Your task to perform on an android device: turn off data saver in the chrome app Image 0: 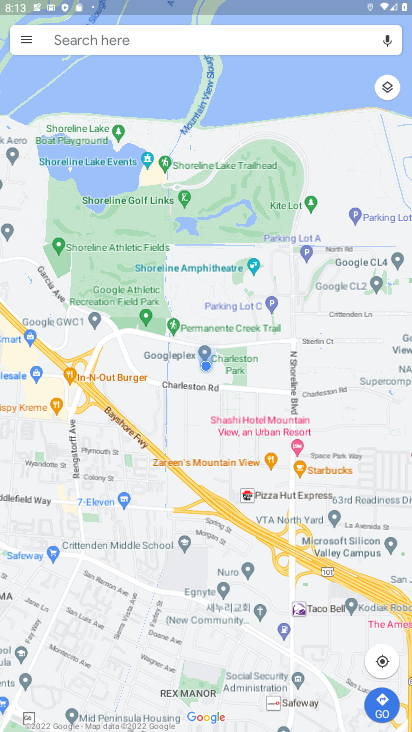
Step 0: press back button
Your task to perform on an android device: turn off data saver in the chrome app Image 1: 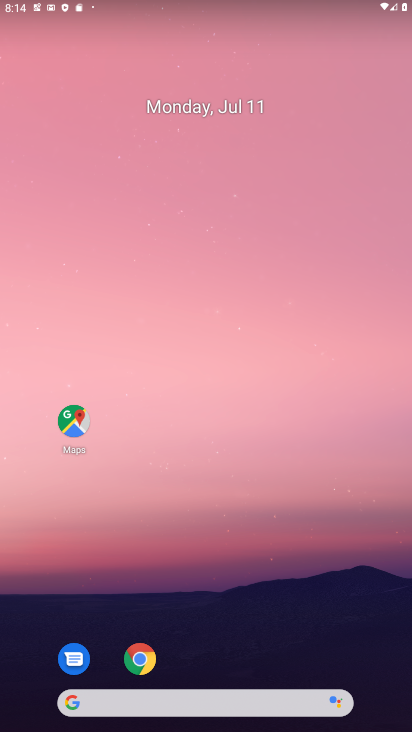
Step 1: drag from (231, 593) to (218, 147)
Your task to perform on an android device: turn off data saver in the chrome app Image 2: 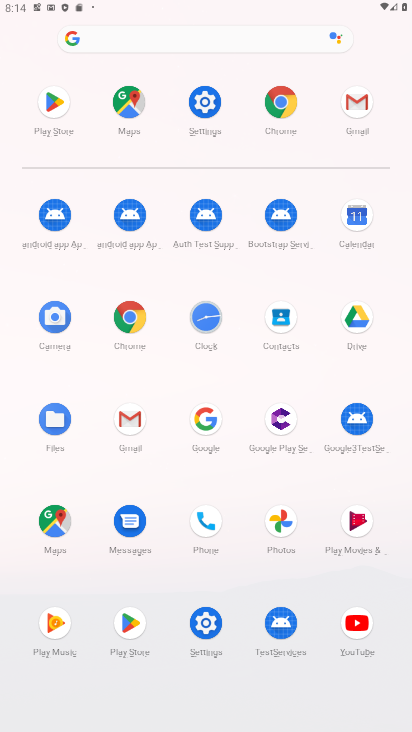
Step 2: click (128, 326)
Your task to perform on an android device: turn off data saver in the chrome app Image 3: 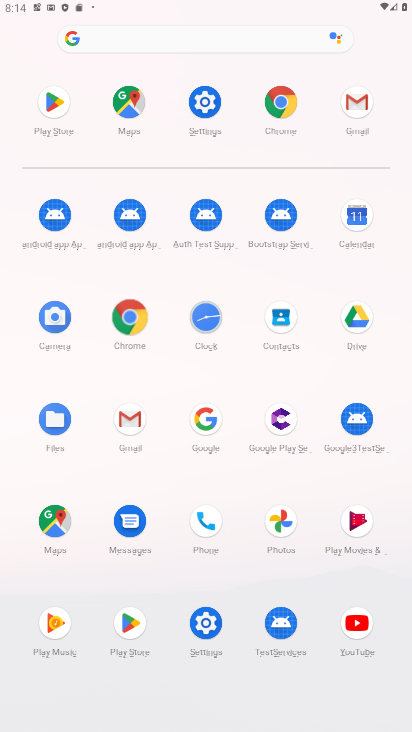
Step 3: click (135, 321)
Your task to perform on an android device: turn off data saver in the chrome app Image 4: 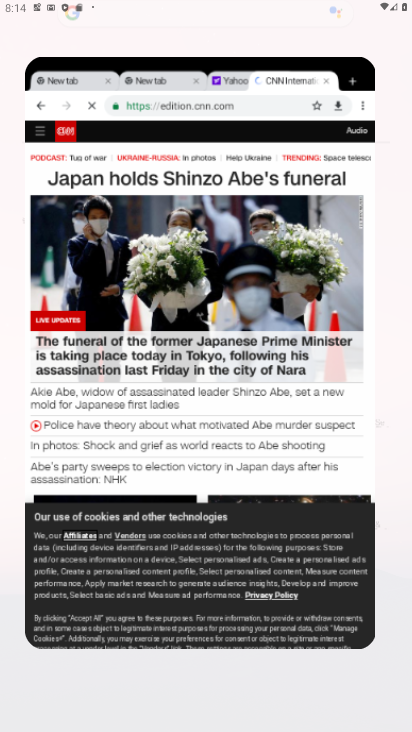
Step 4: click (141, 322)
Your task to perform on an android device: turn off data saver in the chrome app Image 5: 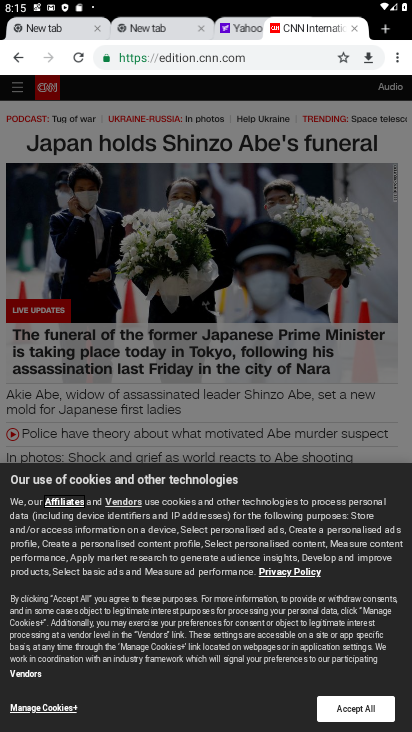
Step 5: press back button
Your task to perform on an android device: turn off data saver in the chrome app Image 6: 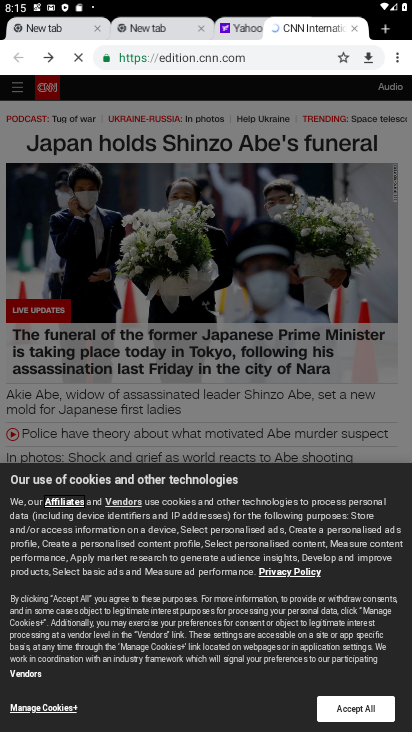
Step 6: press back button
Your task to perform on an android device: turn off data saver in the chrome app Image 7: 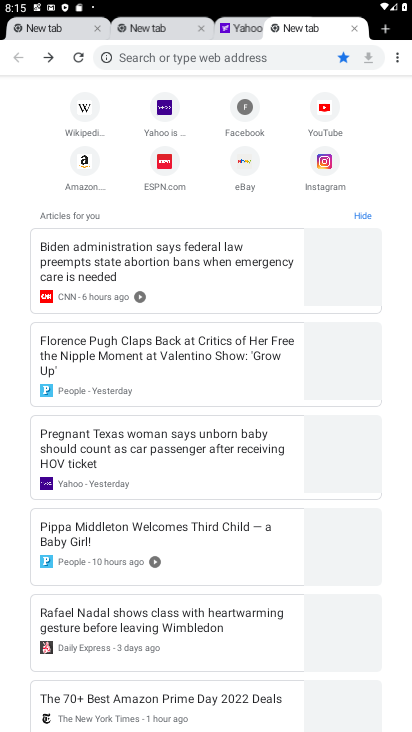
Step 7: press home button
Your task to perform on an android device: turn off data saver in the chrome app Image 8: 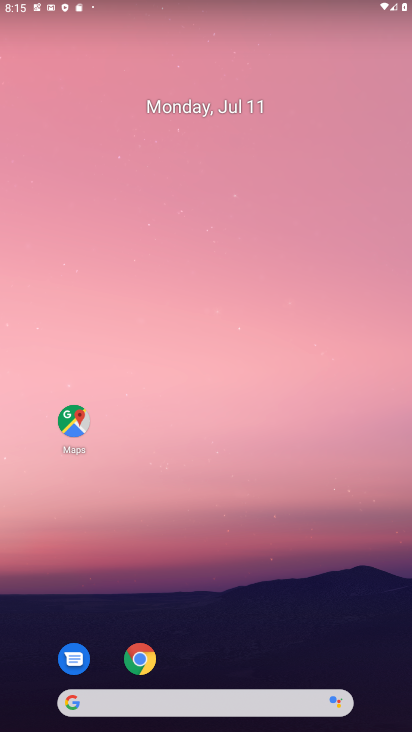
Step 8: press back button
Your task to perform on an android device: turn off data saver in the chrome app Image 9: 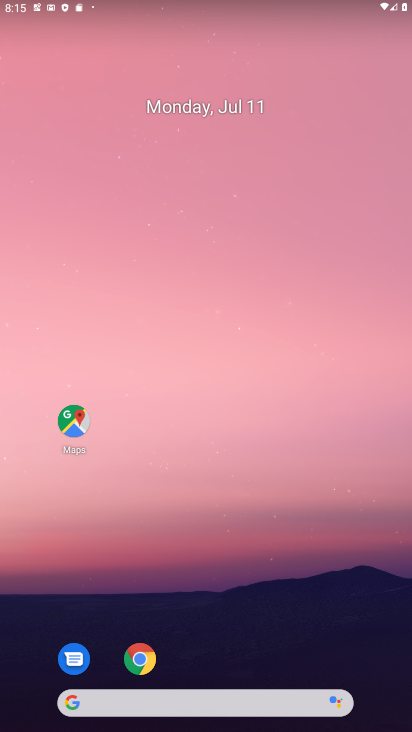
Step 9: drag from (203, 602) to (203, 423)
Your task to perform on an android device: turn off data saver in the chrome app Image 10: 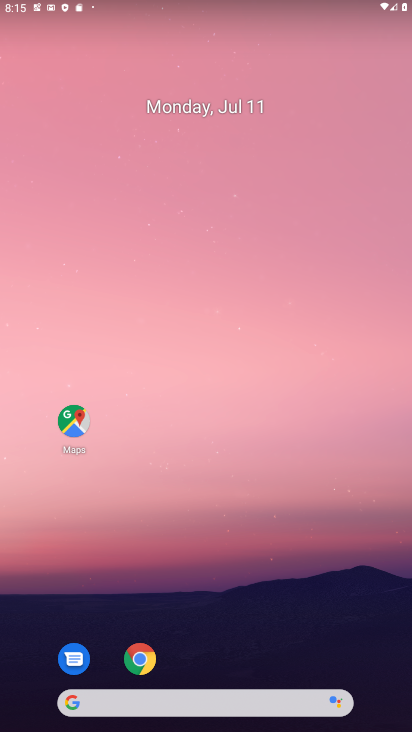
Step 10: drag from (202, 253) to (211, 0)
Your task to perform on an android device: turn off data saver in the chrome app Image 11: 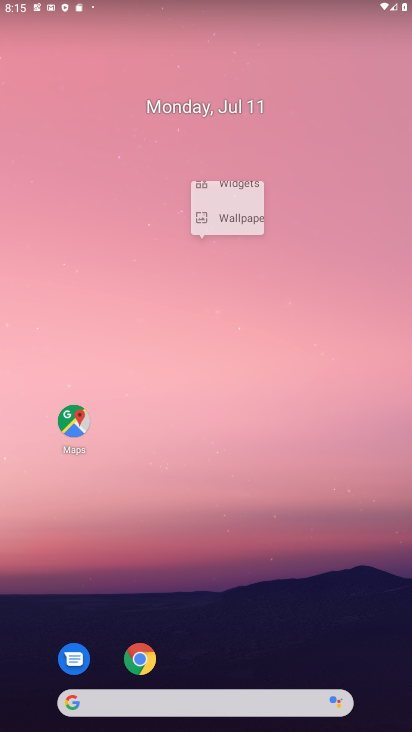
Step 11: click (59, 61)
Your task to perform on an android device: turn off data saver in the chrome app Image 12: 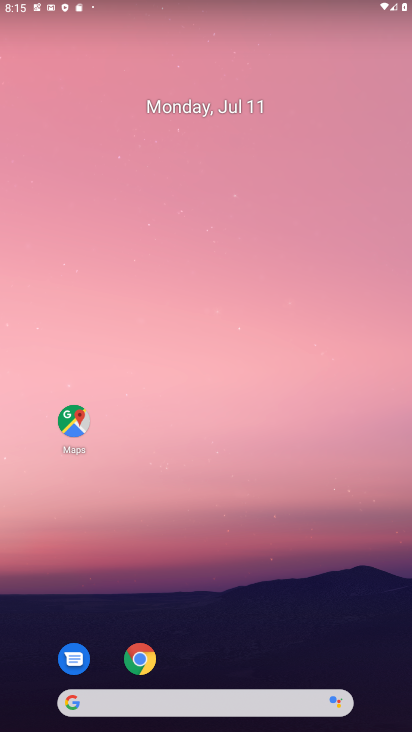
Step 12: drag from (203, 599) to (93, 122)
Your task to perform on an android device: turn off data saver in the chrome app Image 13: 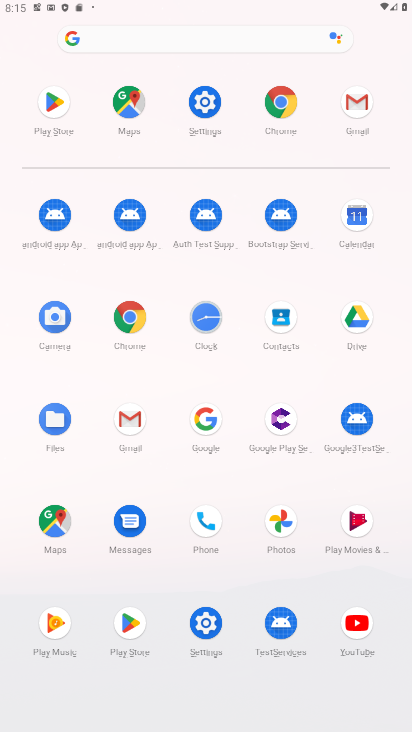
Step 13: click (126, 318)
Your task to perform on an android device: turn off data saver in the chrome app Image 14: 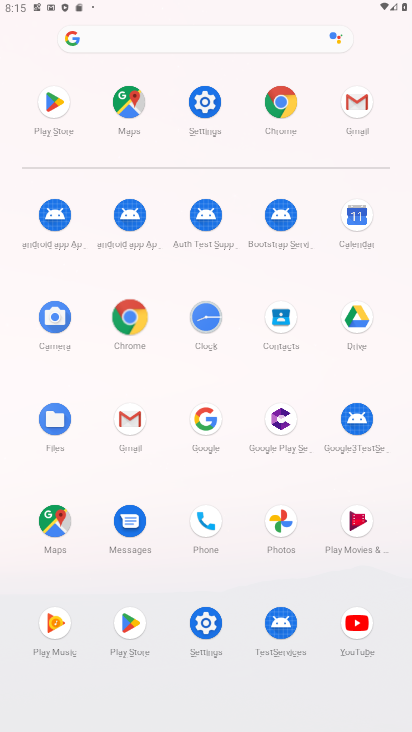
Step 14: click (126, 316)
Your task to perform on an android device: turn off data saver in the chrome app Image 15: 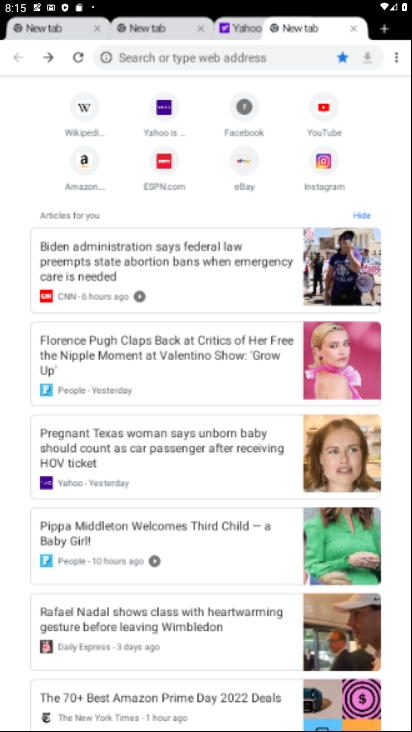
Step 15: click (136, 315)
Your task to perform on an android device: turn off data saver in the chrome app Image 16: 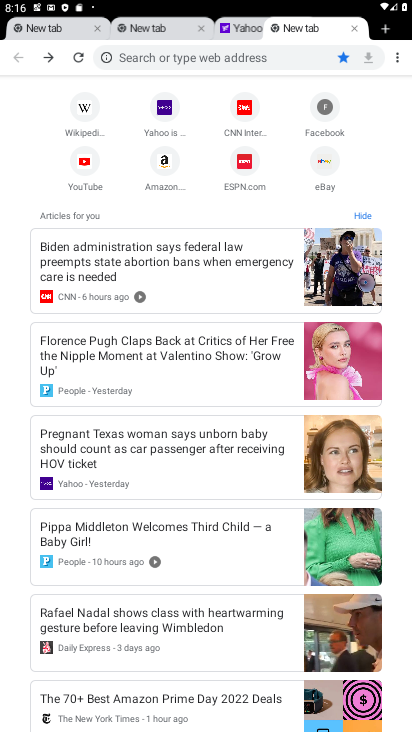
Step 16: click (400, 57)
Your task to perform on an android device: turn off data saver in the chrome app Image 17: 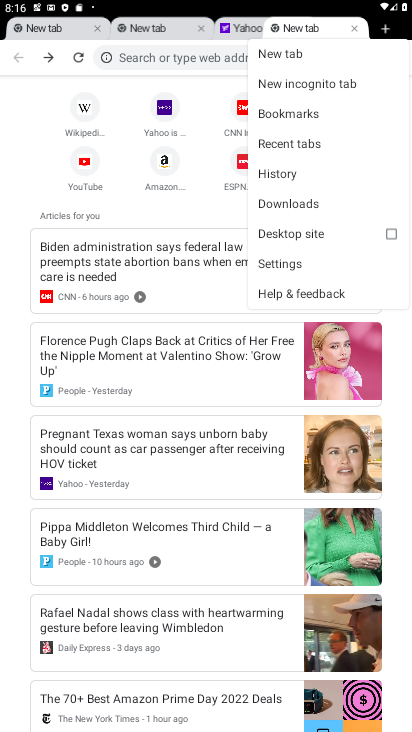
Step 17: click (273, 260)
Your task to perform on an android device: turn off data saver in the chrome app Image 18: 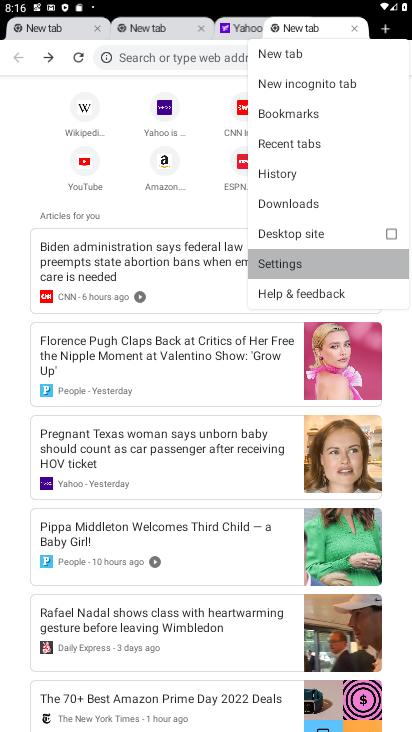
Step 18: click (279, 263)
Your task to perform on an android device: turn off data saver in the chrome app Image 19: 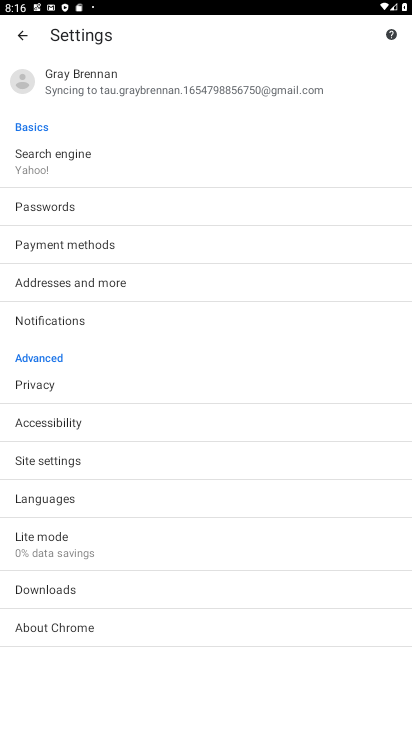
Step 19: click (50, 542)
Your task to perform on an android device: turn off data saver in the chrome app Image 20: 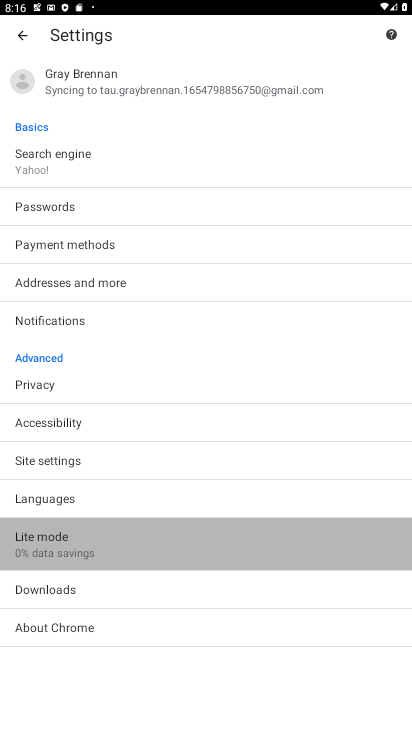
Step 20: click (58, 537)
Your task to perform on an android device: turn off data saver in the chrome app Image 21: 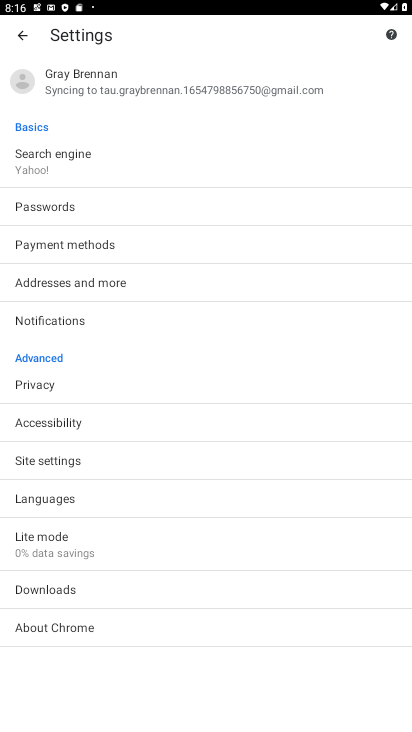
Step 21: click (61, 539)
Your task to perform on an android device: turn off data saver in the chrome app Image 22: 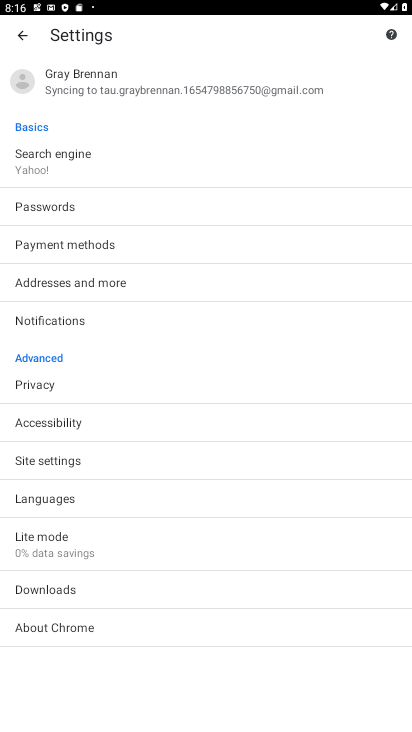
Step 22: click (62, 541)
Your task to perform on an android device: turn off data saver in the chrome app Image 23: 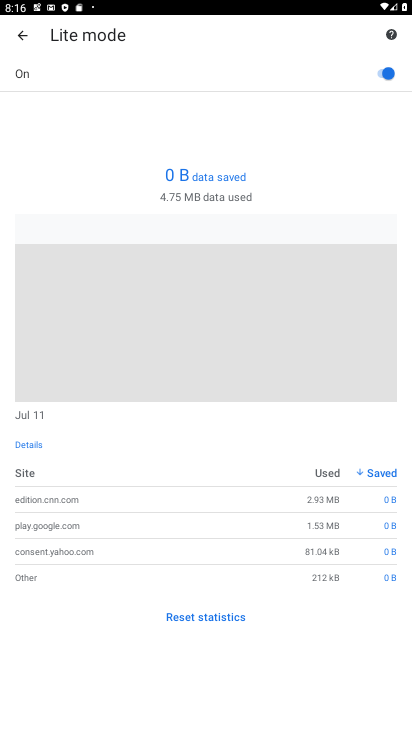
Step 23: click (382, 72)
Your task to perform on an android device: turn off data saver in the chrome app Image 24: 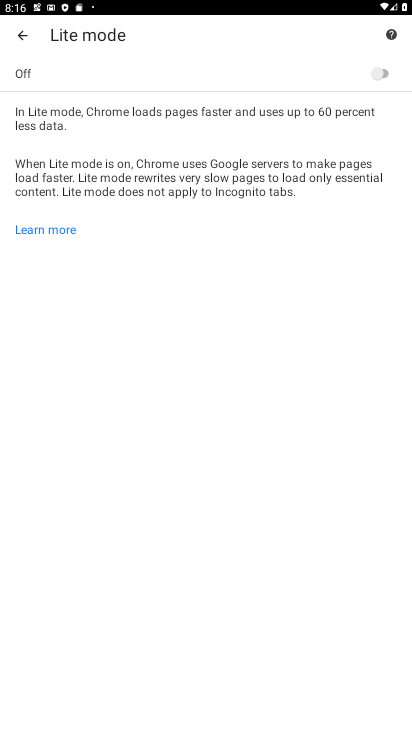
Step 24: task complete